Your task to perform on an android device: turn on improve location accuracy Image 0: 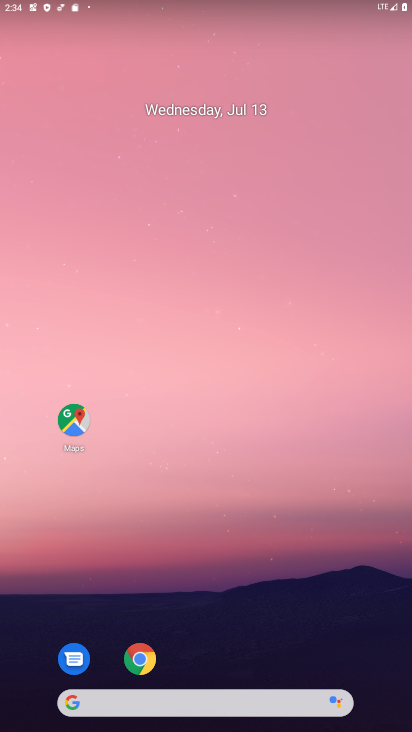
Step 0: drag from (362, 666) to (315, 64)
Your task to perform on an android device: turn on improve location accuracy Image 1: 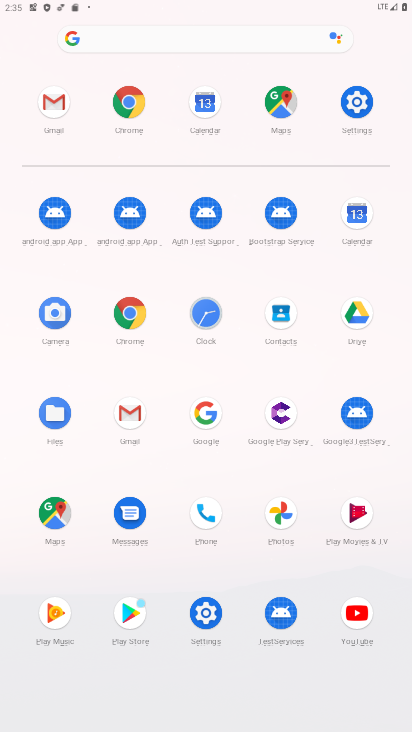
Step 1: click (202, 609)
Your task to perform on an android device: turn on improve location accuracy Image 2: 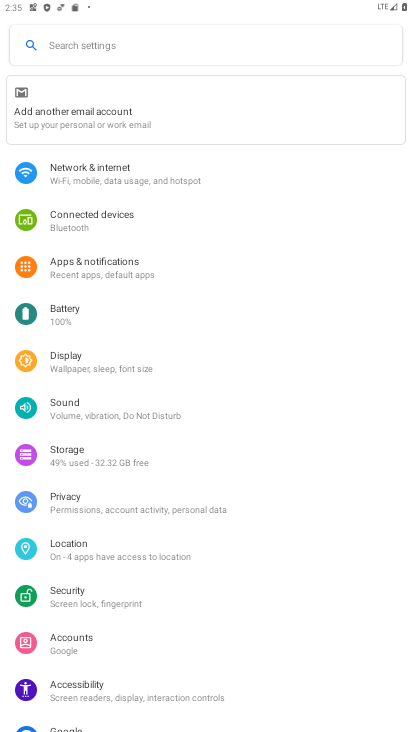
Step 2: click (66, 544)
Your task to perform on an android device: turn on improve location accuracy Image 3: 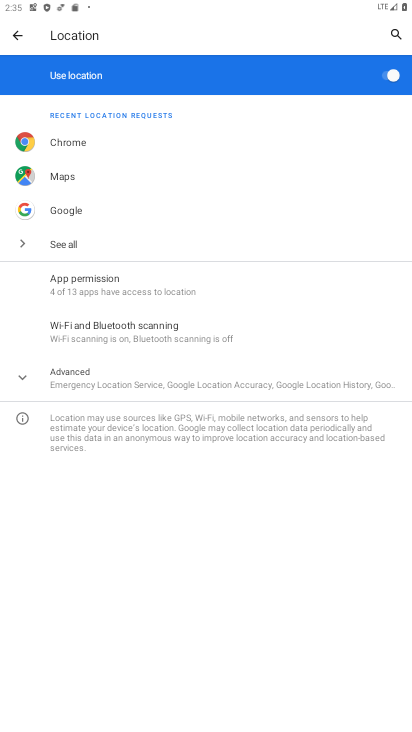
Step 3: click (26, 378)
Your task to perform on an android device: turn on improve location accuracy Image 4: 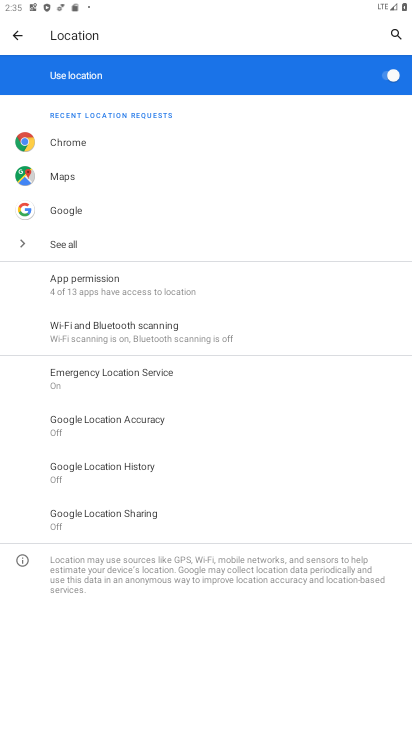
Step 4: click (81, 425)
Your task to perform on an android device: turn on improve location accuracy Image 5: 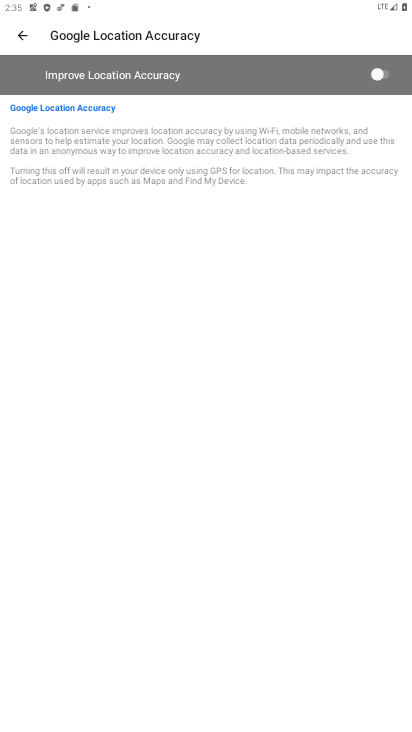
Step 5: click (381, 75)
Your task to perform on an android device: turn on improve location accuracy Image 6: 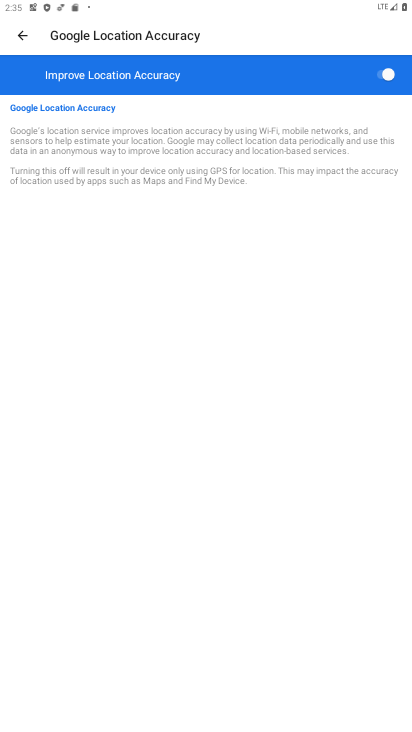
Step 6: task complete